Your task to perform on an android device: Search for the best coffee tables on Crate & Barrel Image 0: 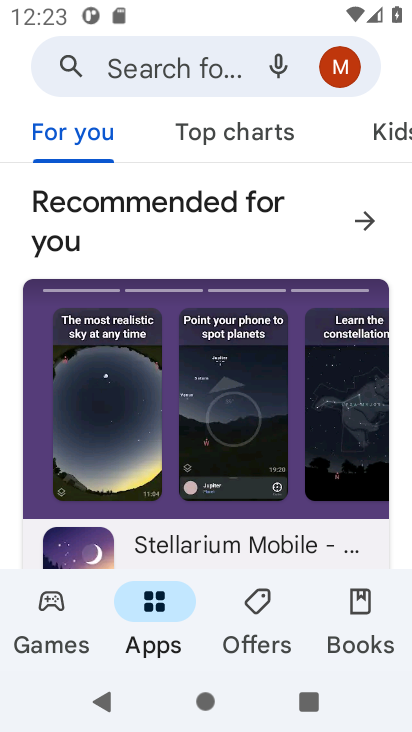
Step 0: press home button
Your task to perform on an android device: Search for the best coffee tables on Crate & Barrel Image 1: 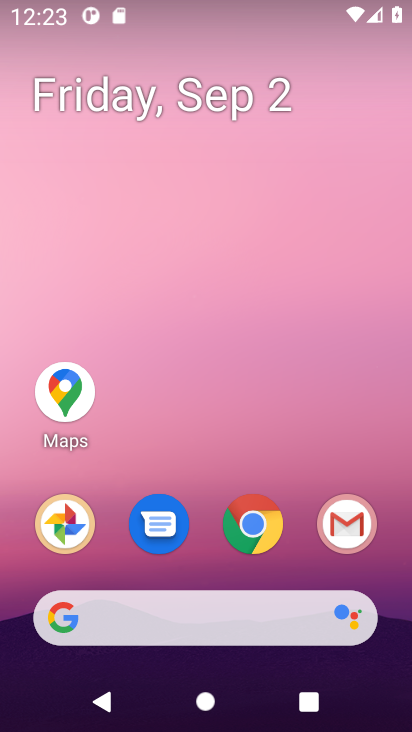
Step 1: click (268, 603)
Your task to perform on an android device: Search for the best coffee tables on Crate & Barrel Image 2: 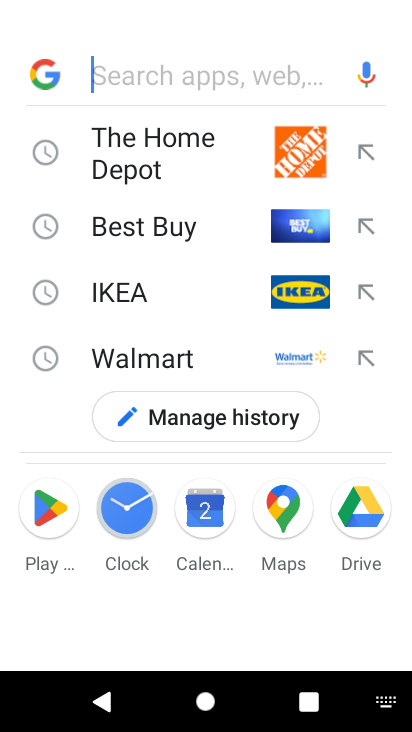
Step 2: press enter
Your task to perform on an android device: Search for the best coffee tables on Crate & Barrel Image 3: 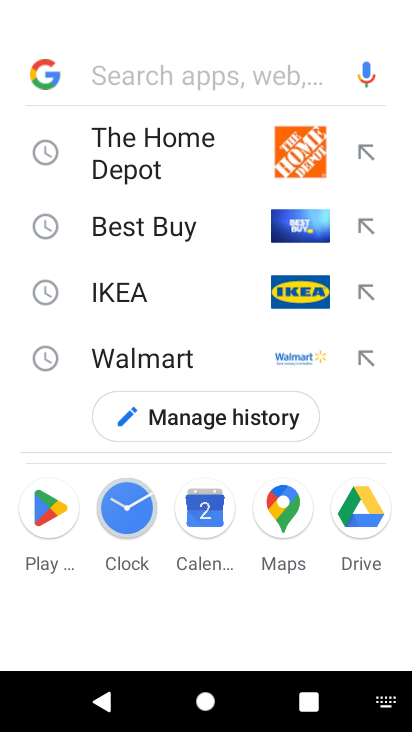
Step 3: type "crate barrel"
Your task to perform on an android device: Search for the best coffee tables on Crate & Barrel Image 4: 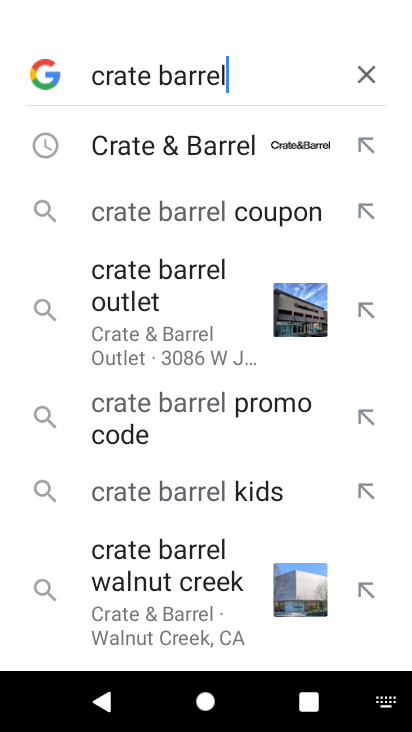
Step 4: click (244, 141)
Your task to perform on an android device: Search for the best coffee tables on Crate & Barrel Image 5: 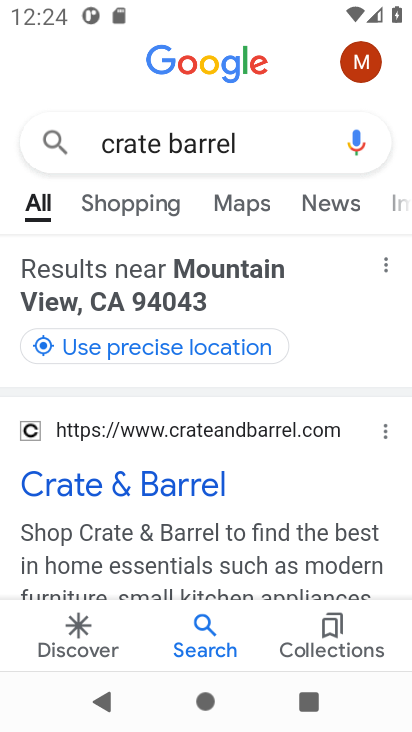
Step 5: click (201, 489)
Your task to perform on an android device: Search for the best coffee tables on Crate & Barrel Image 6: 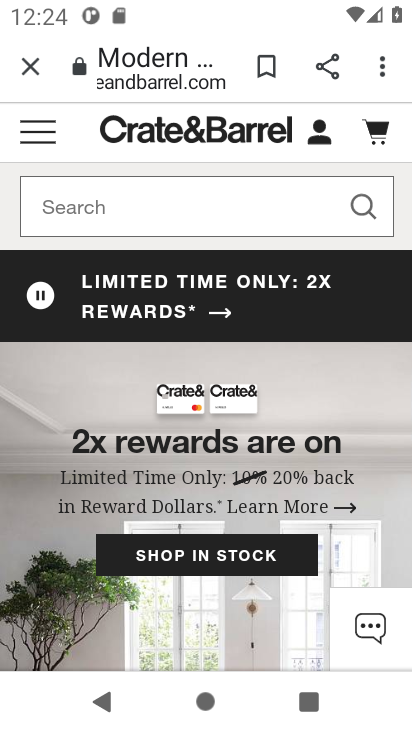
Step 6: click (157, 209)
Your task to perform on an android device: Search for the best coffee tables on Crate & Barrel Image 7: 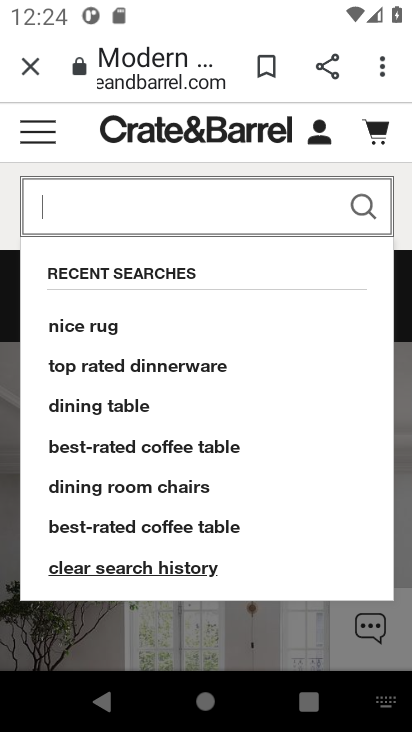
Step 7: press enter
Your task to perform on an android device: Search for the best coffee tables on Crate & Barrel Image 8: 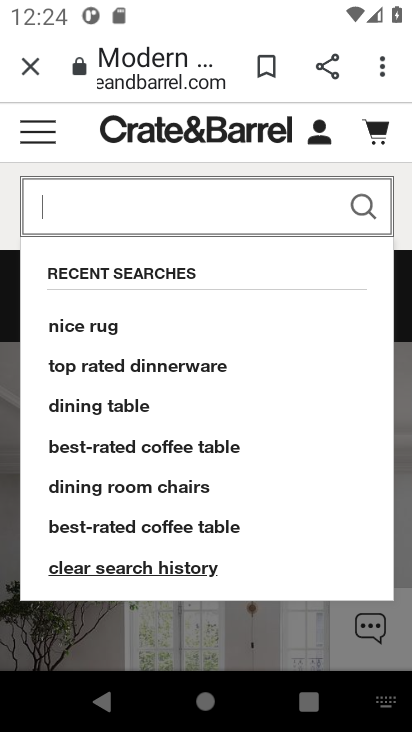
Step 8: type "coffee table"
Your task to perform on an android device: Search for the best coffee tables on Crate & Barrel Image 9: 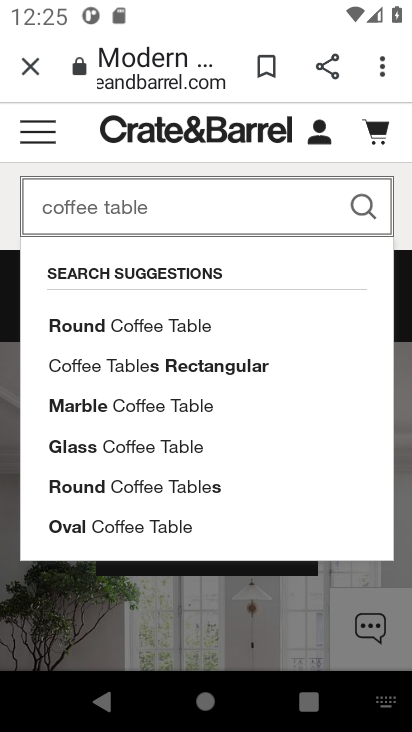
Step 9: click (350, 199)
Your task to perform on an android device: Search for the best coffee tables on Crate & Barrel Image 10: 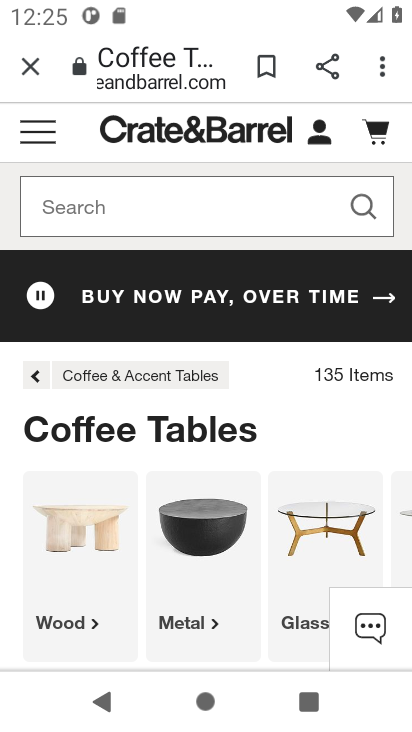
Step 10: task complete